Your task to perform on an android device: Open location settings Image 0: 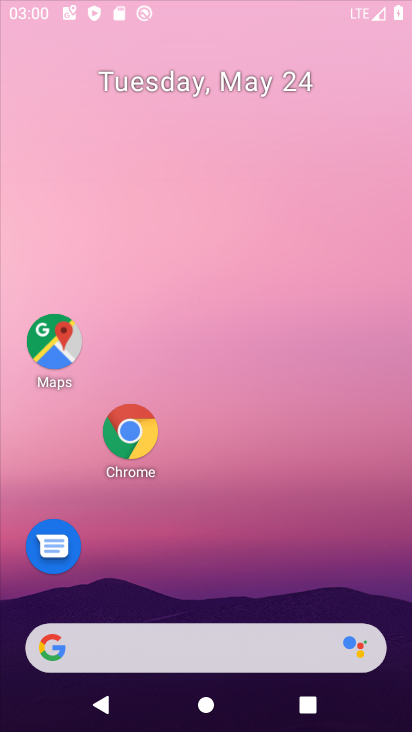
Step 0: click (261, 143)
Your task to perform on an android device: Open location settings Image 1: 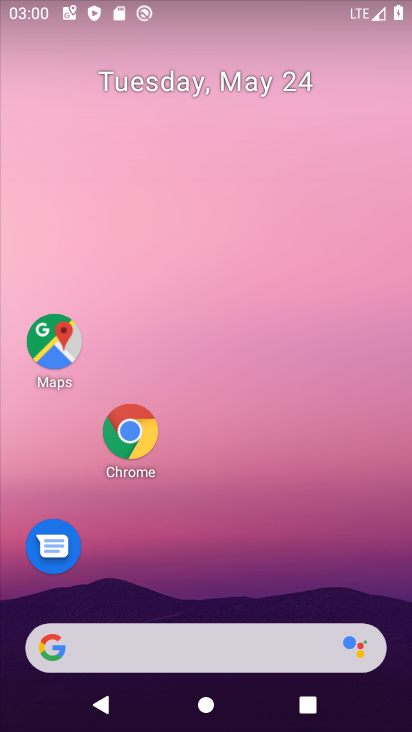
Step 1: drag from (216, 547) to (267, 162)
Your task to perform on an android device: Open location settings Image 2: 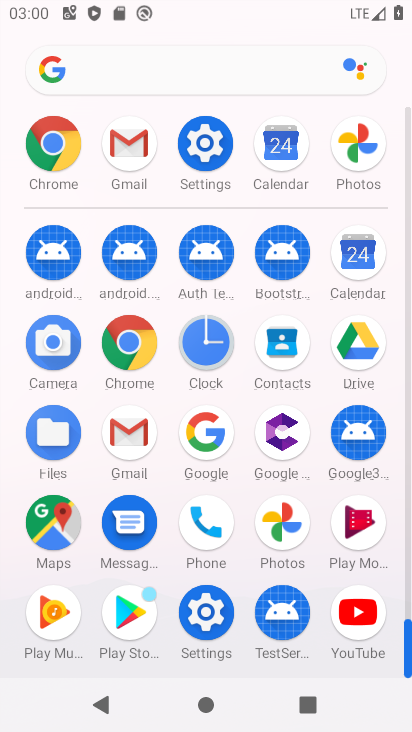
Step 2: click (212, 136)
Your task to perform on an android device: Open location settings Image 3: 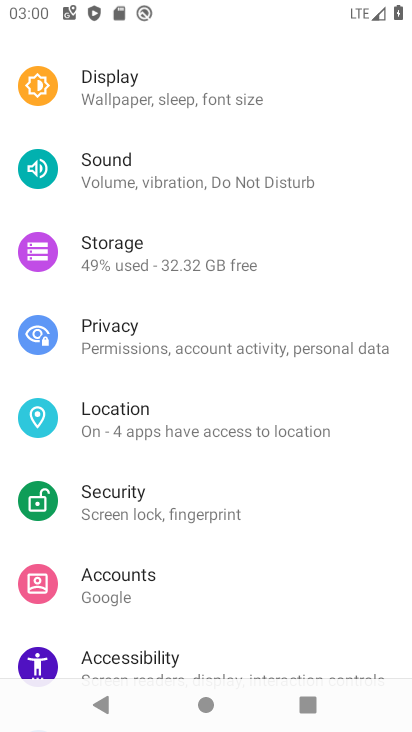
Step 3: click (169, 426)
Your task to perform on an android device: Open location settings Image 4: 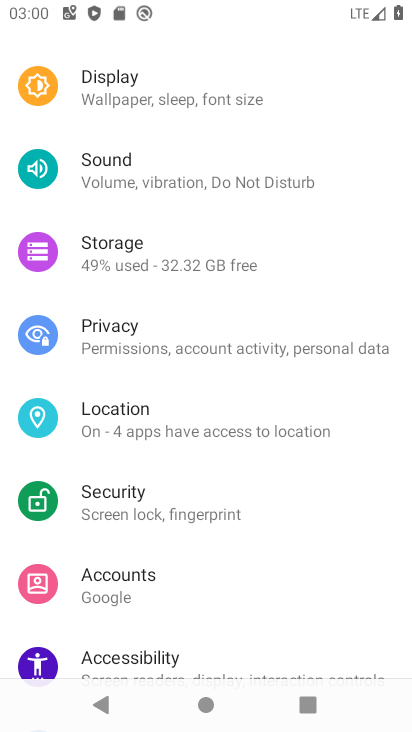
Step 4: click (169, 426)
Your task to perform on an android device: Open location settings Image 5: 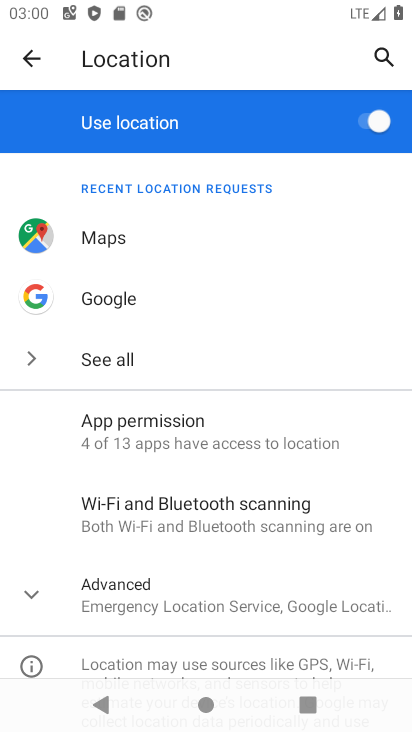
Step 5: task complete